Your task to perform on an android device: open app "McDonald's" (install if not already installed) Image 0: 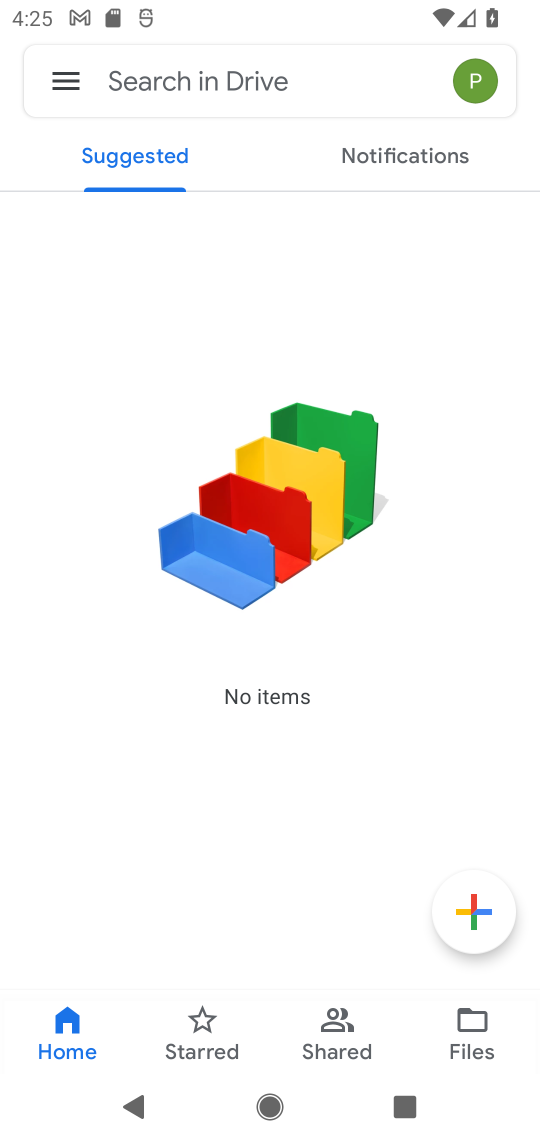
Step 0: press home button
Your task to perform on an android device: open app "McDonald's" (install if not already installed) Image 1: 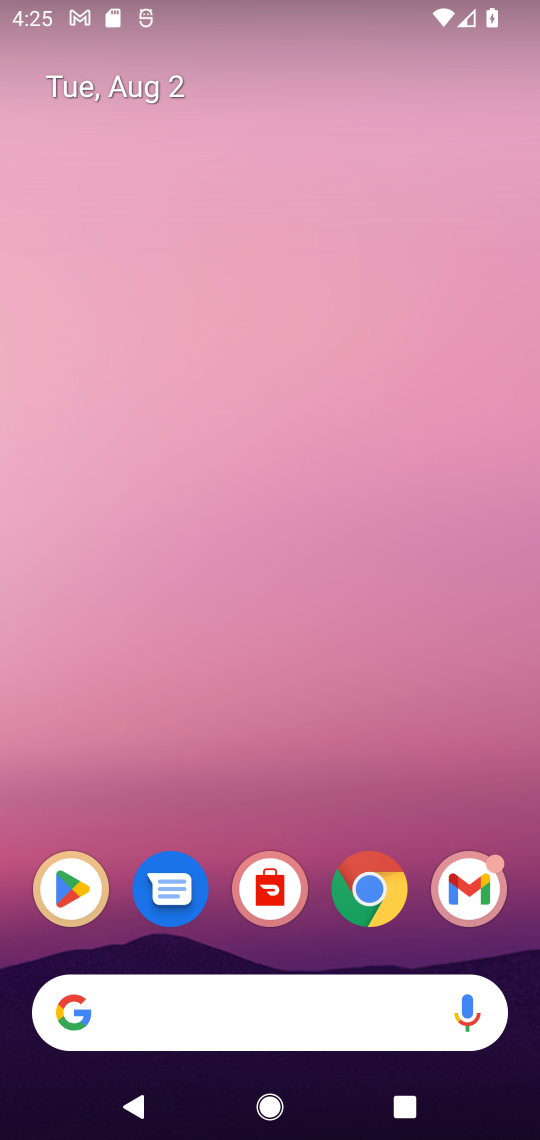
Step 1: drag from (401, 760) to (410, 116)
Your task to perform on an android device: open app "McDonald's" (install if not already installed) Image 2: 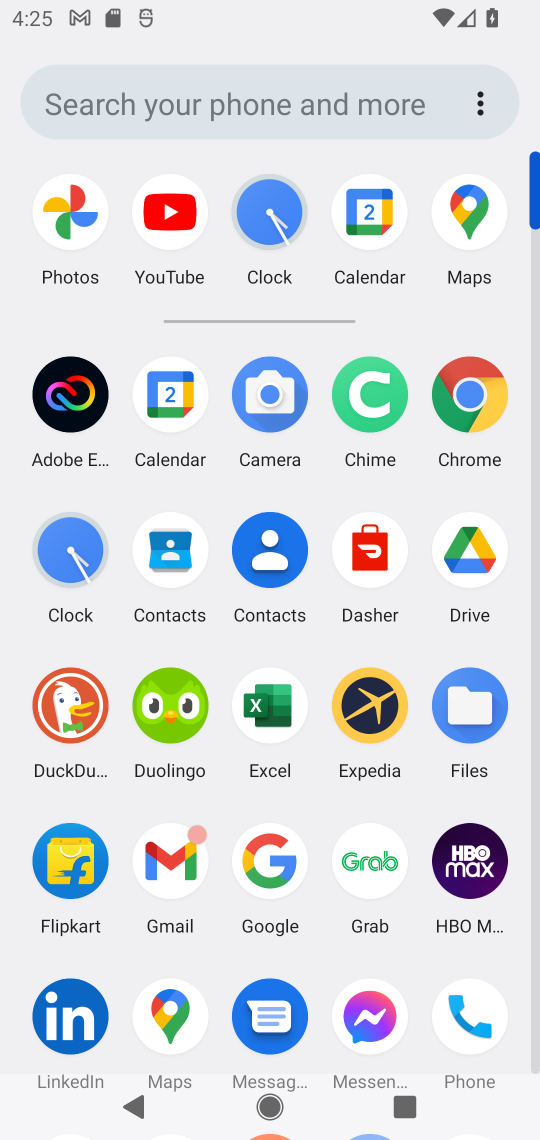
Step 2: drag from (514, 789) to (534, 426)
Your task to perform on an android device: open app "McDonald's" (install if not already installed) Image 3: 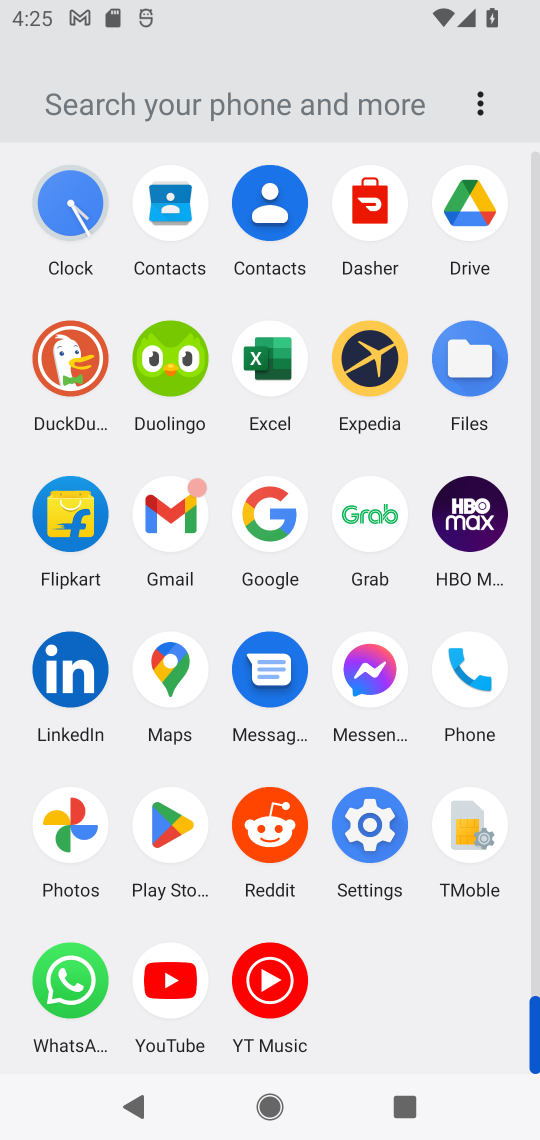
Step 3: click (169, 839)
Your task to perform on an android device: open app "McDonald's" (install if not already installed) Image 4: 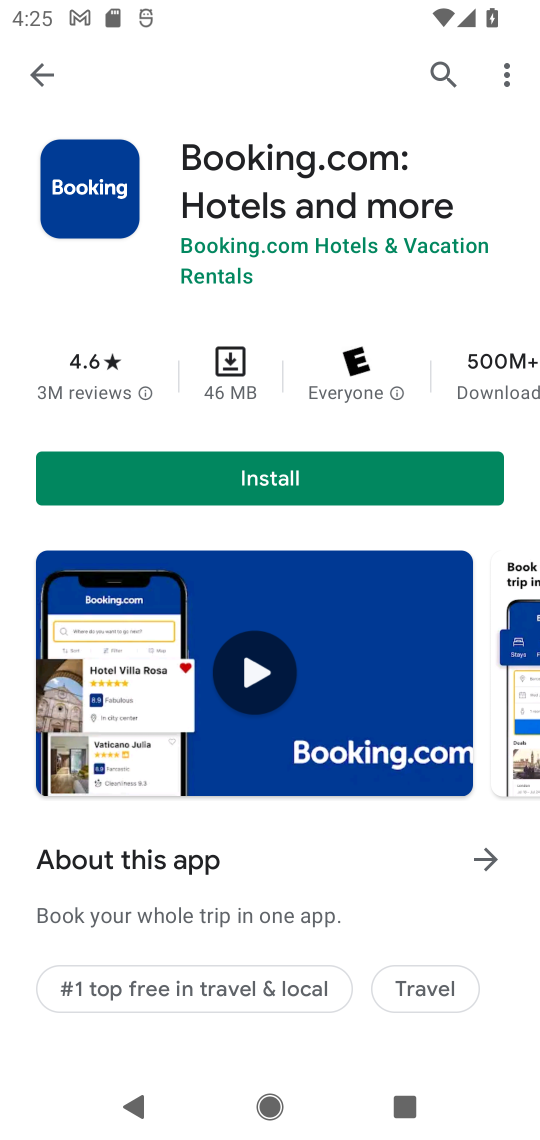
Step 4: click (436, 71)
Your task to perform on an android device: open app "McDonald's" (install if not already installed) Image 5: 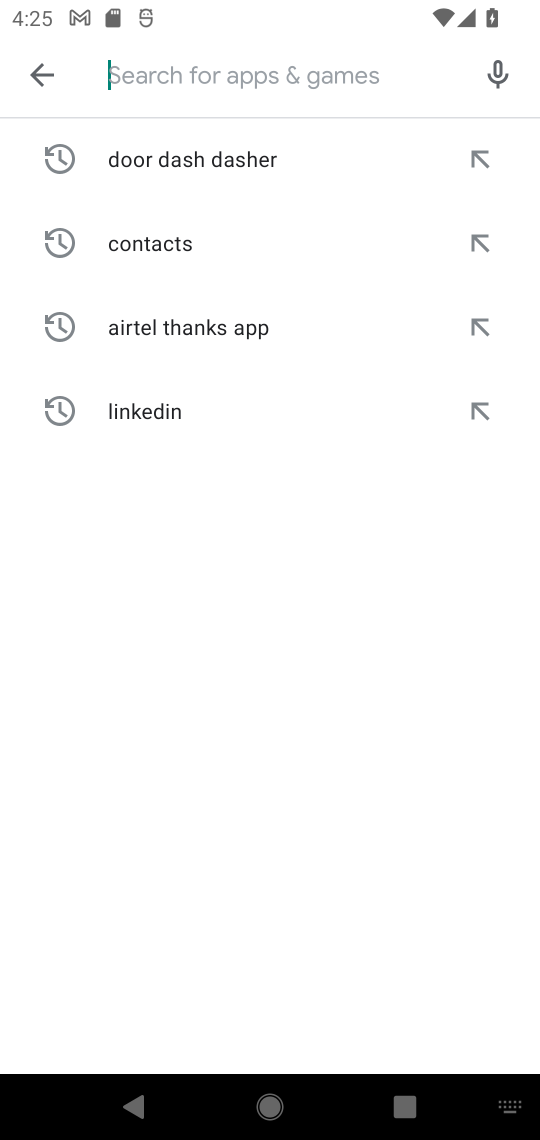
Step 5: type "mcdonalds"
Your task to perform on an android device: open app "McDonald's" (install if not already installed) Image 6: 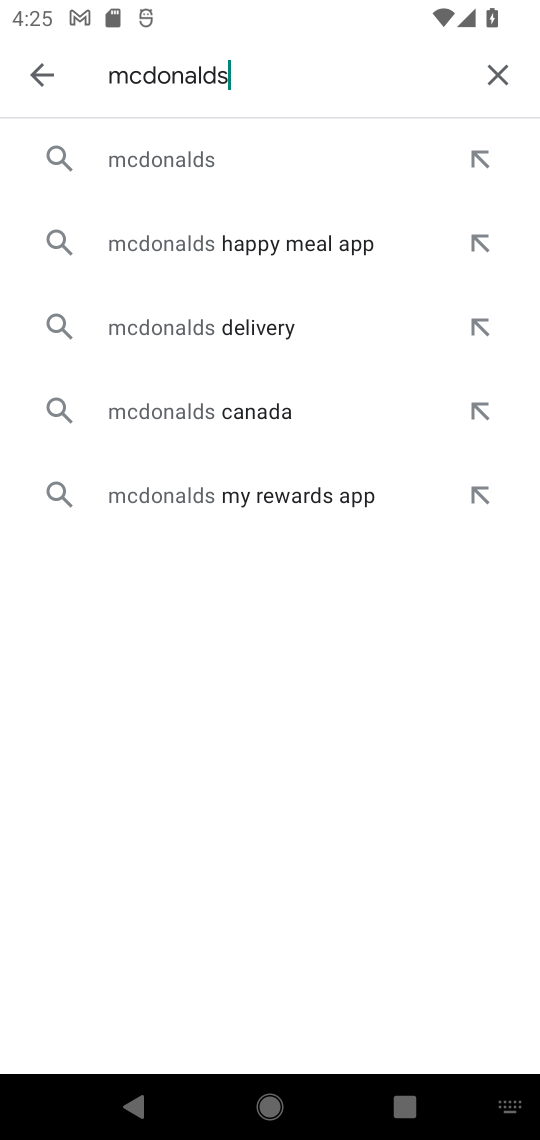
Step 6: click (239, 168)
Your task to perform on an android device: open app "McDonald's" (install if not already installed) Image 7: 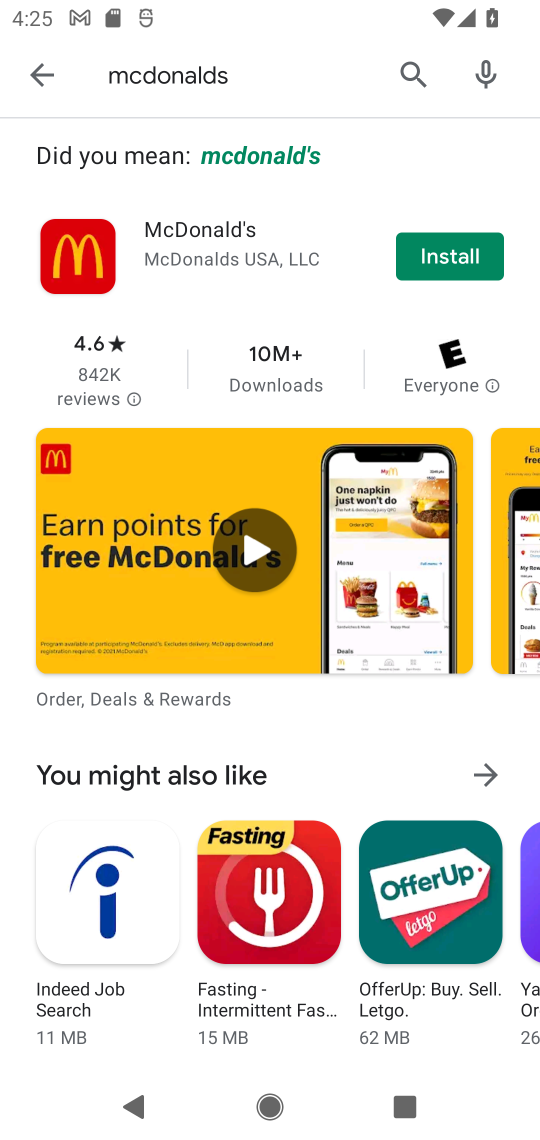
Step 7: click (443, 247)
Your task to perform on an android device: open app "McDonald's" (install if not already installed) Image 8: 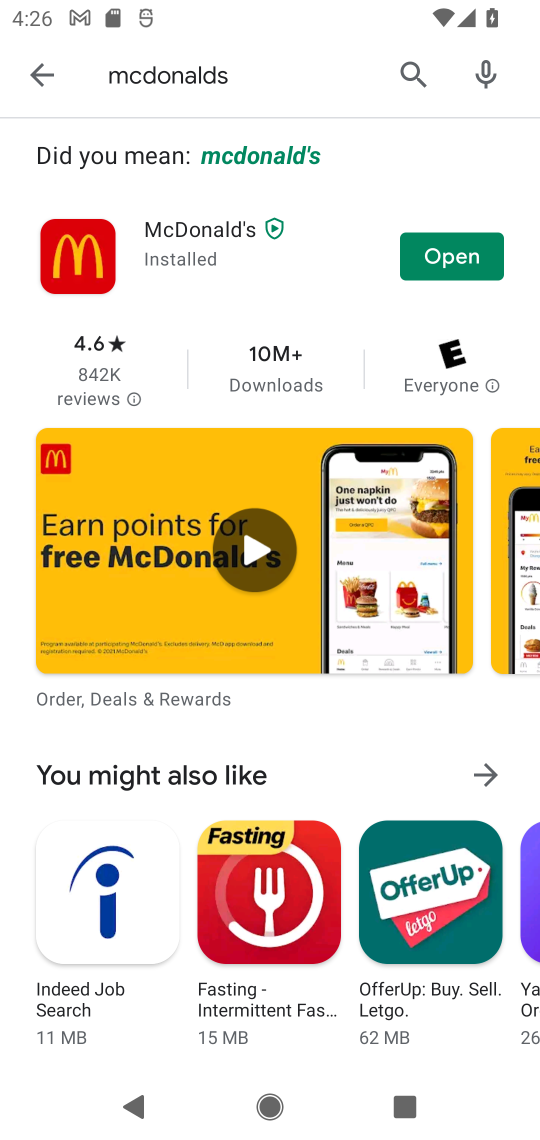
Step 8: click (465, 260)
Your task to perform on an android device: open app "McDonald's" (install if not already installed) Image 9: 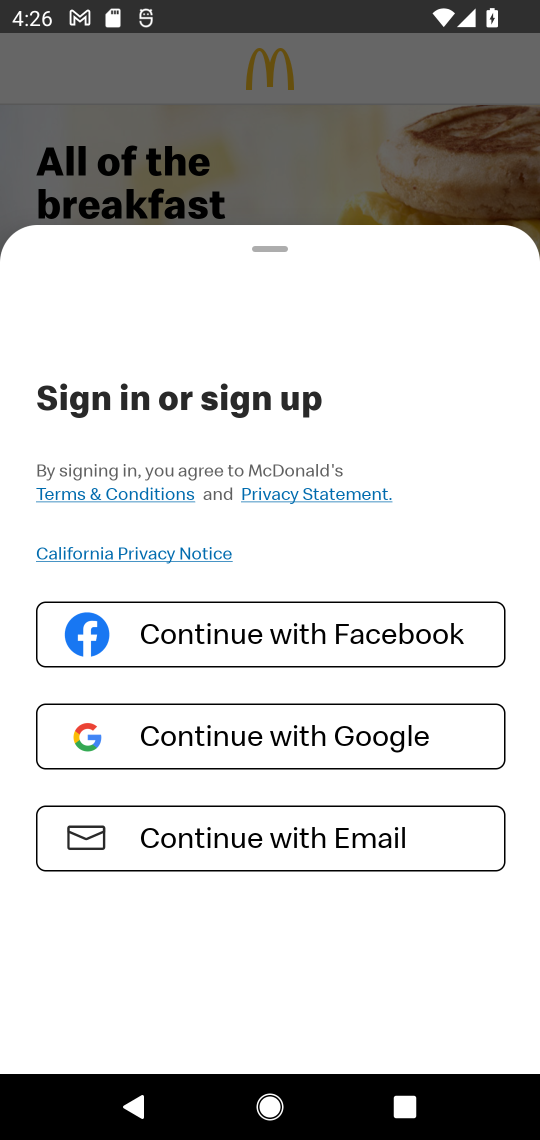
Step 9: task complete